Your task to perform on an android device: Go to wifi settings Image 0: 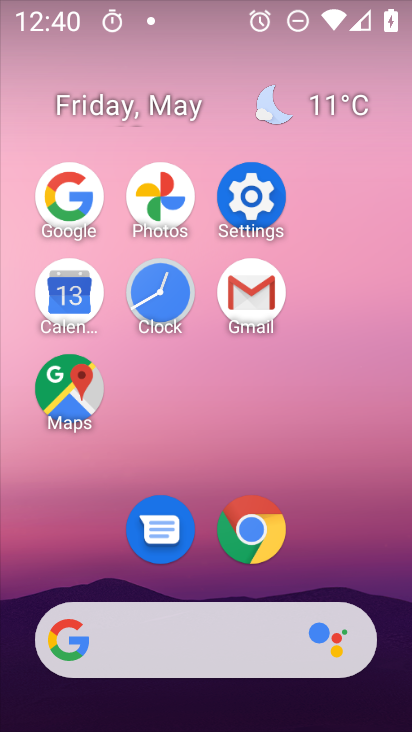
Step 0: click (268, 193)
Your task to perform on an android device: Go to wifi settings Image 1: 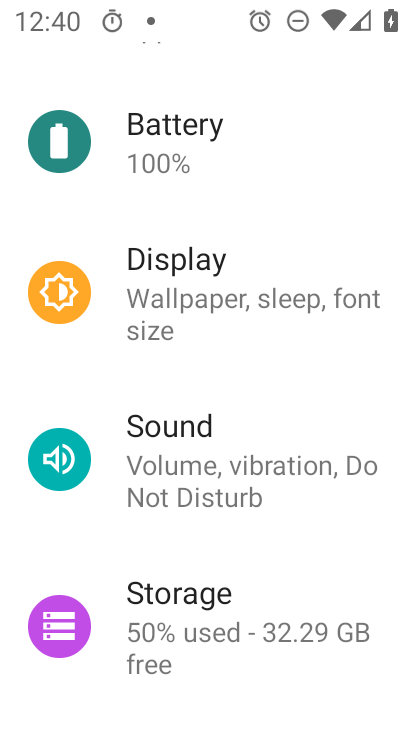
Step 1: drag from (295, 171) to (273, 605)
Your task to perform on an android device: Go to wifi settings Image 2: 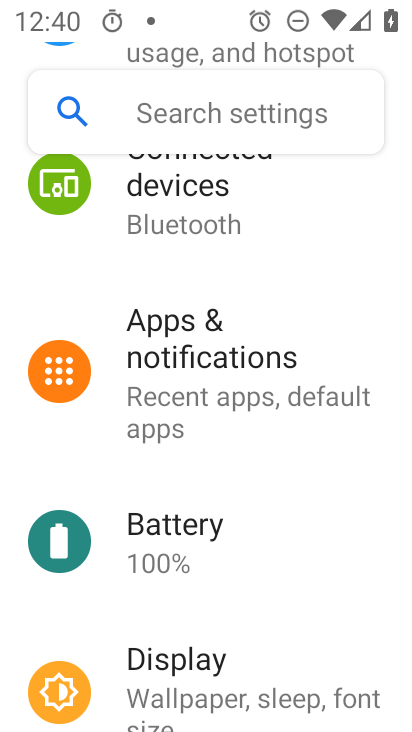
Step 2: drag from (329, 197) to (327, 605)
Your task to perform on an android device: Go to wifi settings Image 3: 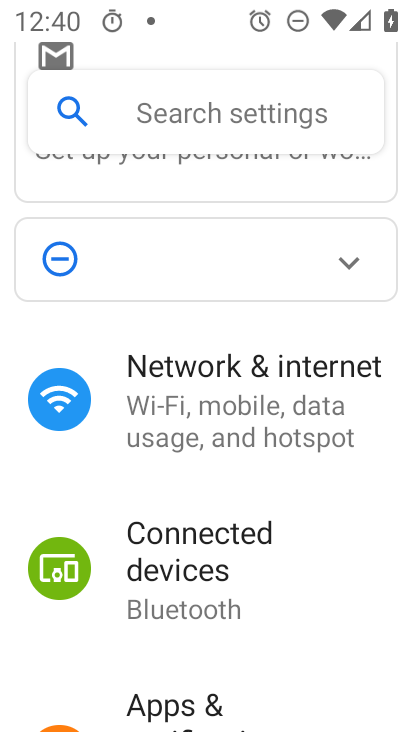
Step 3: click (271, 412)
Your task to perform on an android device: Go to wifi settings Image 4: 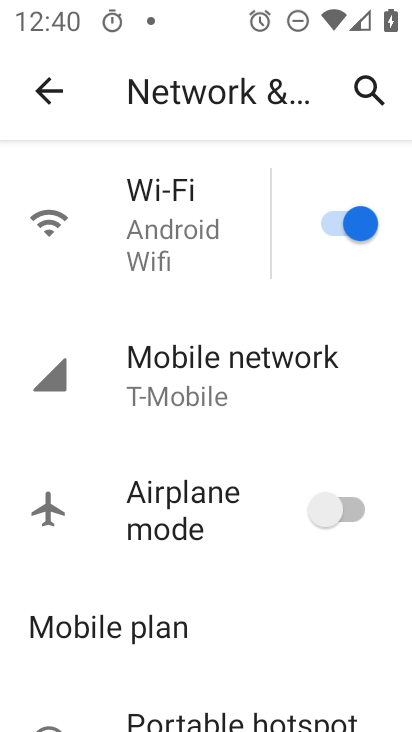
Step 4: click (140, 225)
Your task to perform on an android device: Go to wifi settings Image 5: 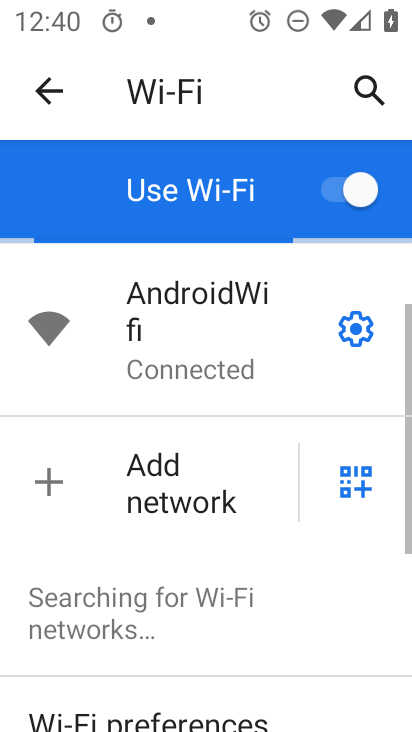
Step 5: click (360, 321)
Your task to perform on an android device: Go to wifi settings Image 6: 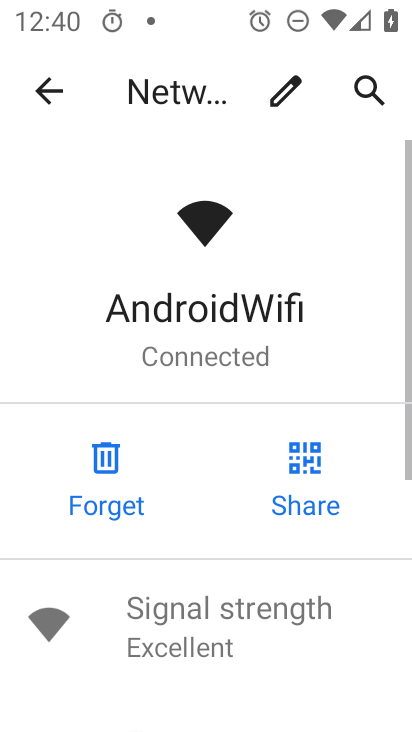
Step 6: task complete